Your task to perform on an android device: check the backup settings in the google photos Image 0: 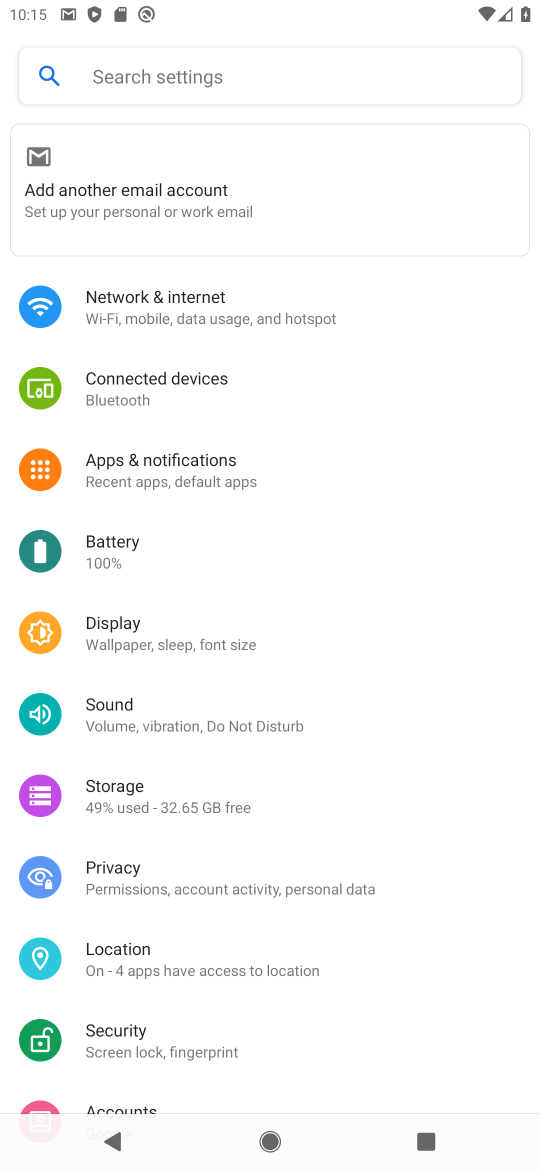
Step 0: press home button
Your task to perform on an android device: check the backup settings in the google photos Image 1: 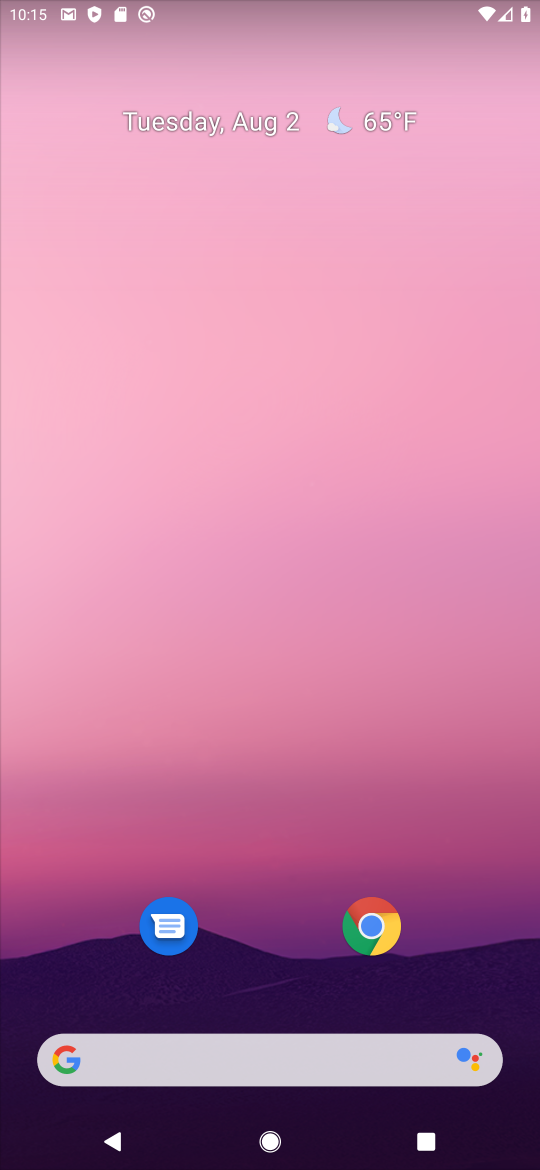
Step 1: drag from (481, 978) to (352, 206)
Your task to perform on an android device: check the backup settings in the google photos Image 2: 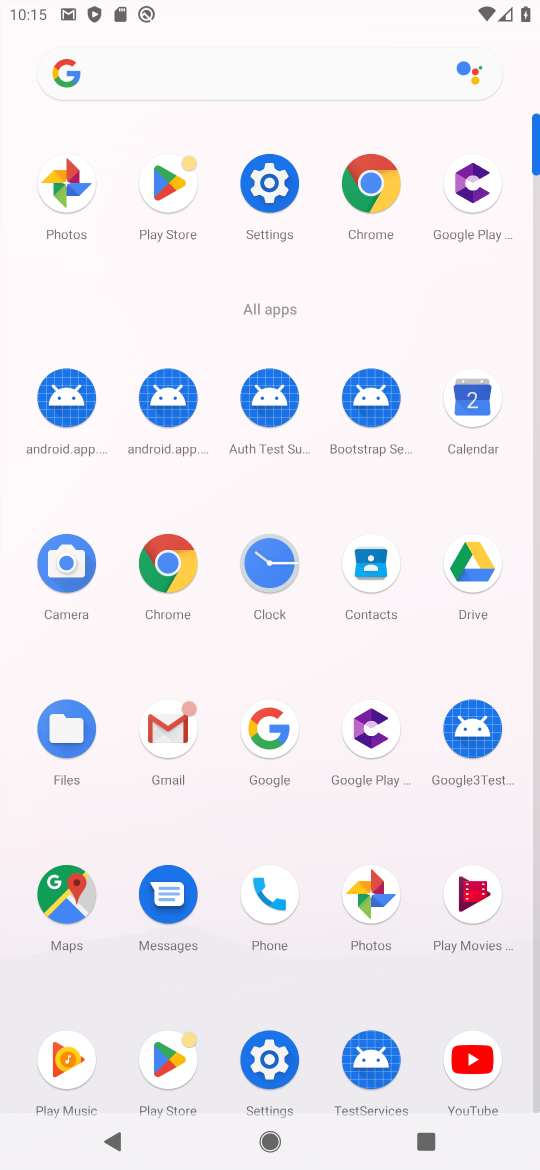
Step 2: click (54, 199)
Your task to perform on an android device: check the backup settings in the google photos Image 3: 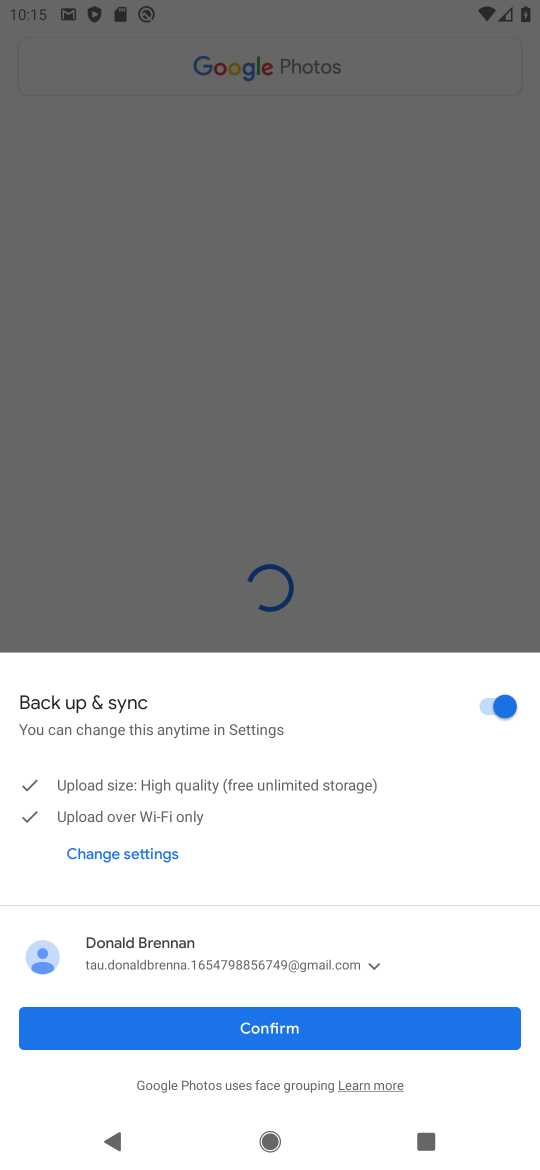
Step 3: click (282, 1030)
Your task to perform on an android device: check the backup settings in the google photos Image 4: 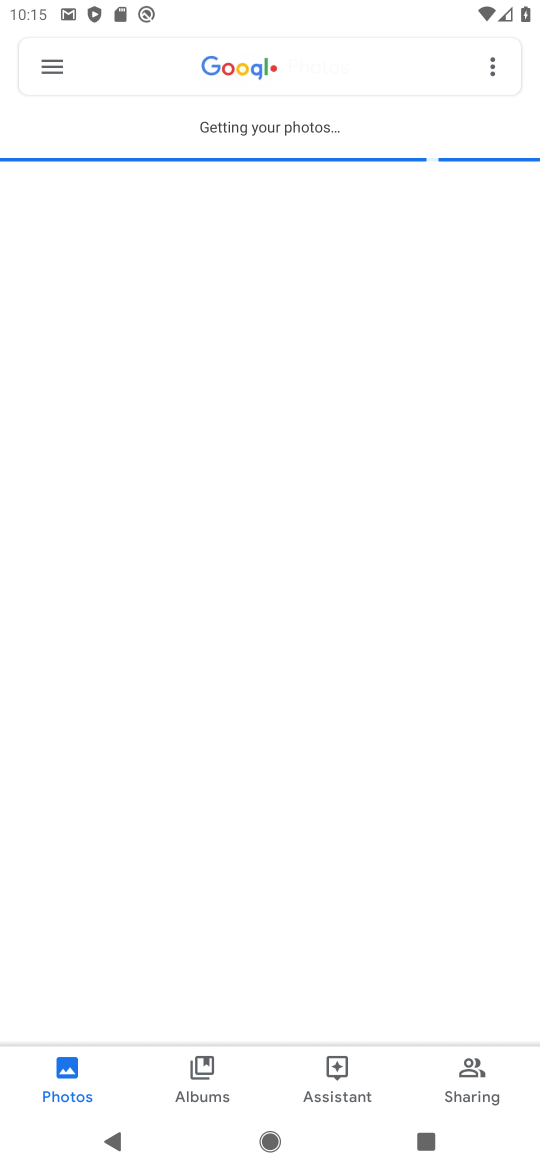
Step 4: click (48, 60)
Your task to perform on an android device: check the backup settings in the google photos Image 5: 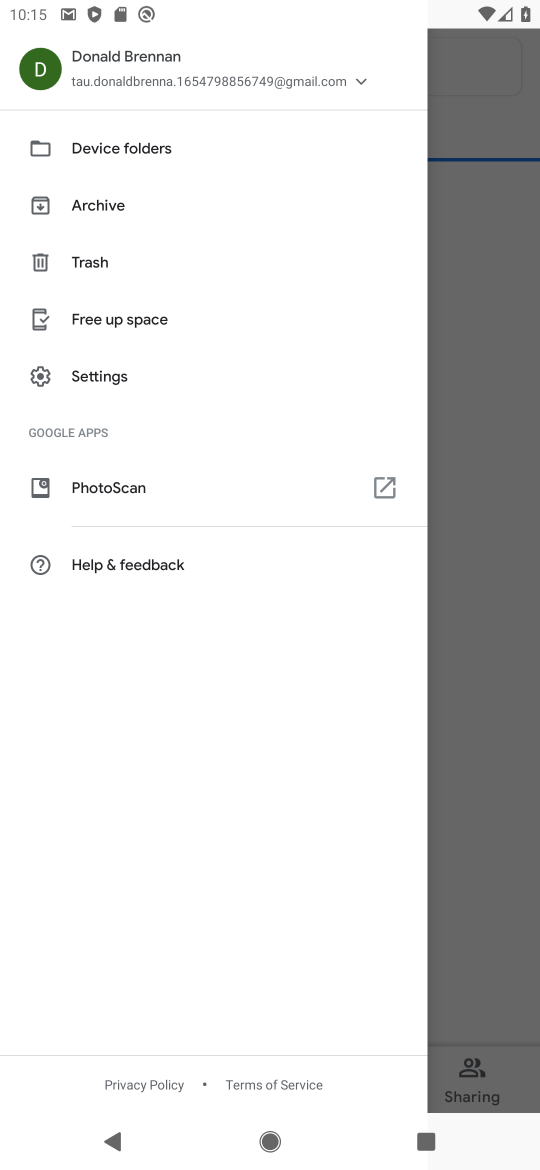
Step 5: click (129, 391)
Your task to perform on an android device: check the backup settings in the google photos Image 6: 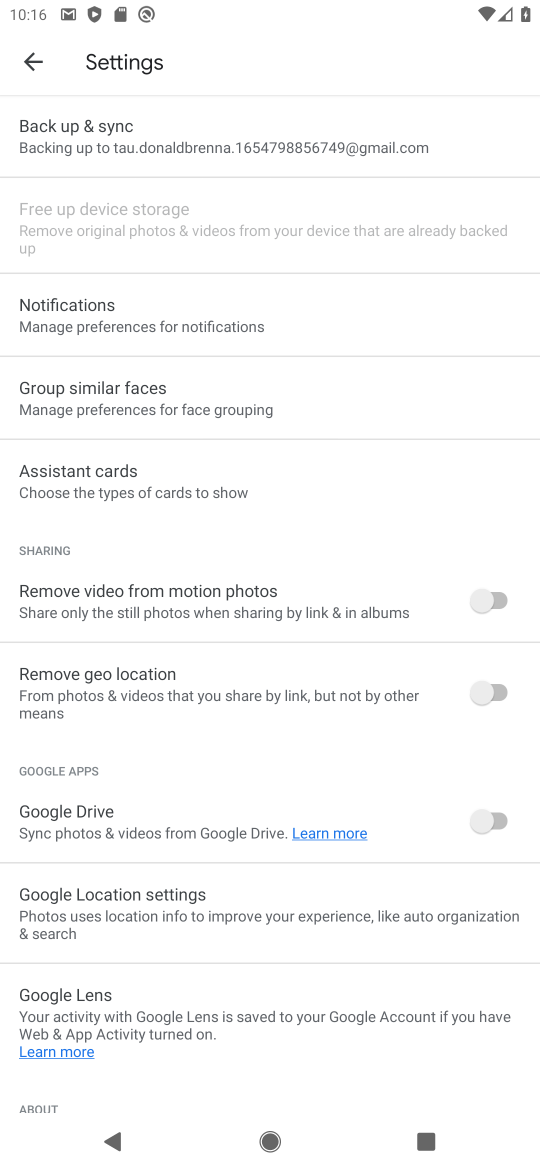
Step 6: click (254, 142)
Your task to perform on an android device: check the backup settings in the google photos Image 7: 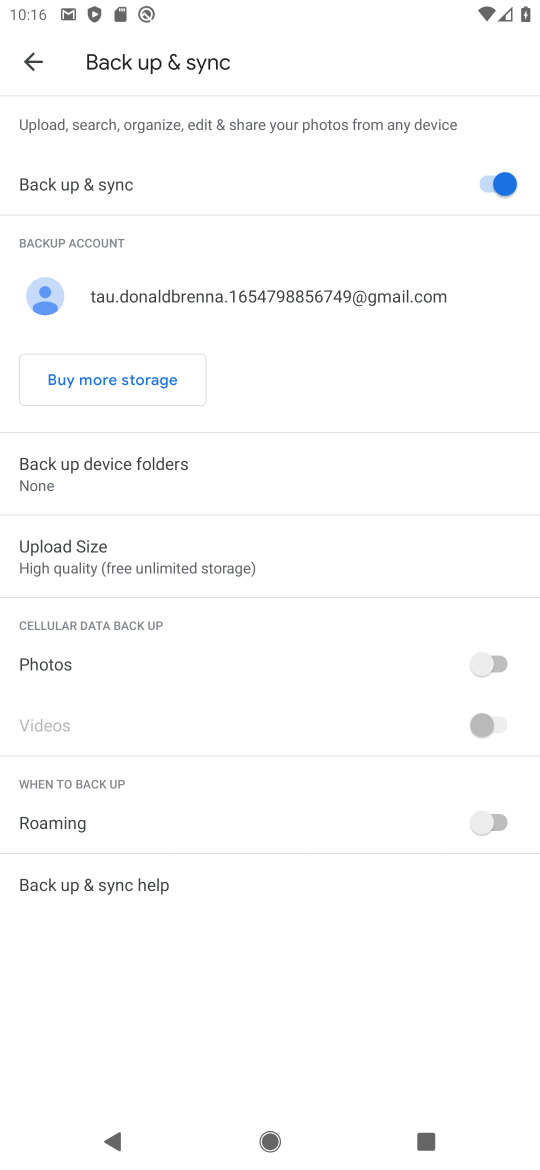
Step 7: task complete